Your task to perform on an android device: show emergency info Image 0: 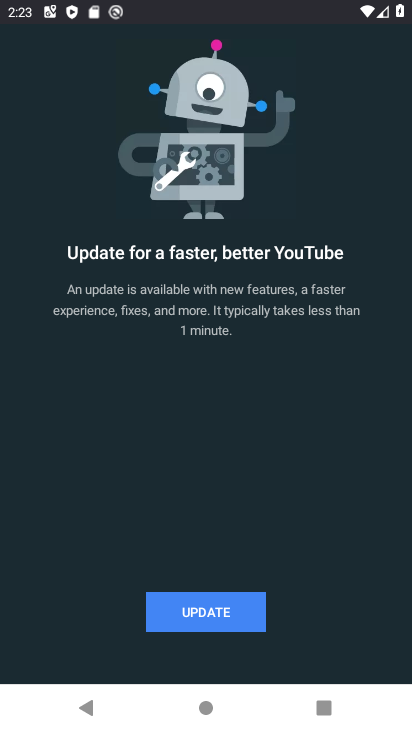
Step 0: press home button
Your task to perform on an android device: show emergency info Image 1: 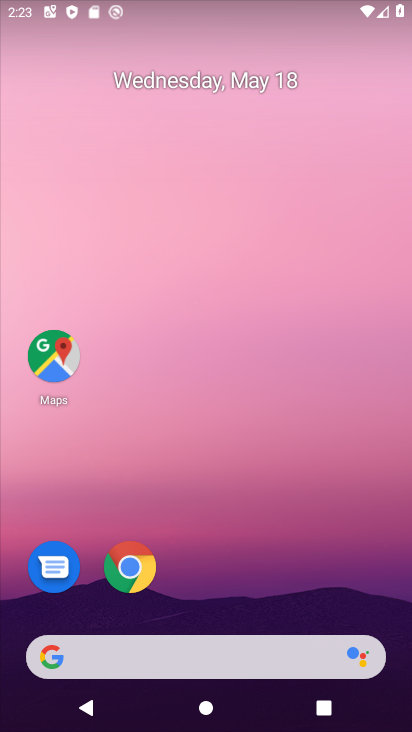
Step 1: drag from (224, 539) to (270, 233)
Your task to perform on an android device: show emergency info Image 2: 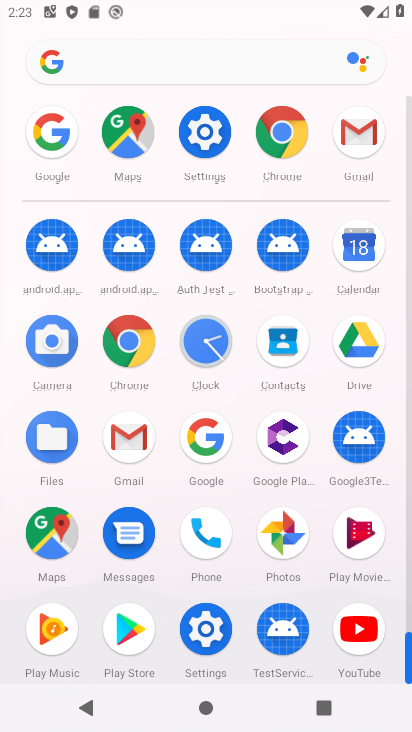
Step 2: click (211, 117)
Your task to perform on an android device: show emergency info Image 3: 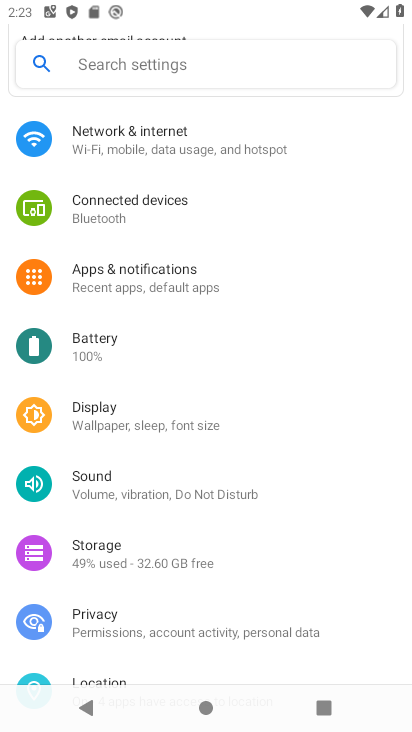
Step 3: drag from (176, 583) to (262, 96)
Your task to perform on an android device: show emergency info Image 4: 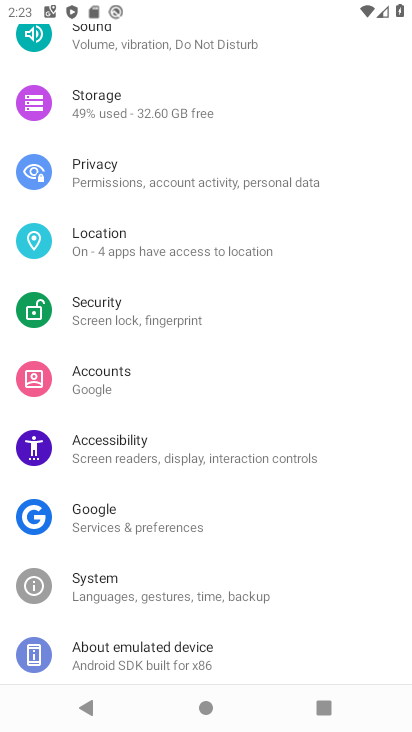
Step 4: click (123, 638)
Your task to perform on an android device: show emergency info Image 5: 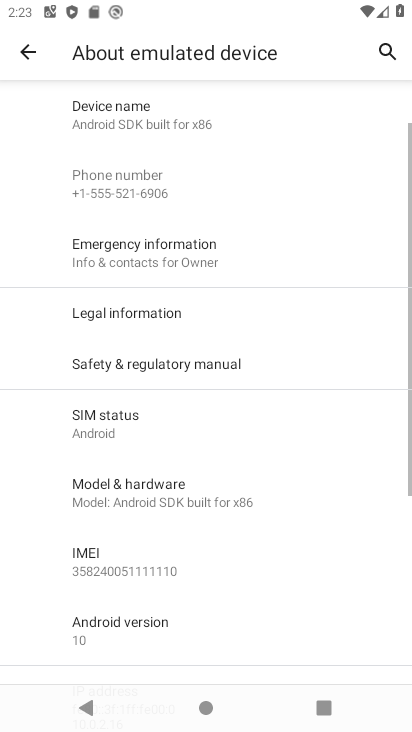
Step 5: click (150, 253)
Your task to perform on an android device: show emergency info Image 6: 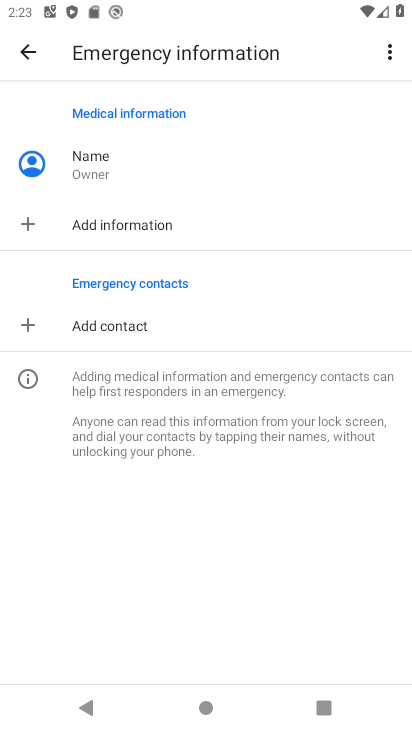
Step 6: task complete